Your task to perform on an android device: check battery use Image 0: 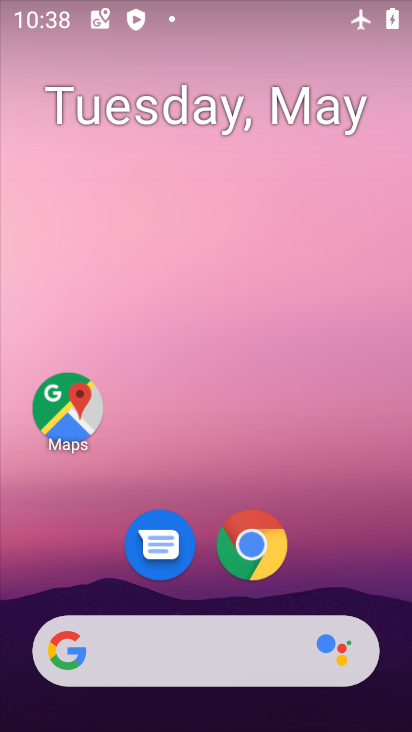
Step 0: drag from (247, 602) to (233, 163)
Your task to perform on an android device: check battery use Image 1: 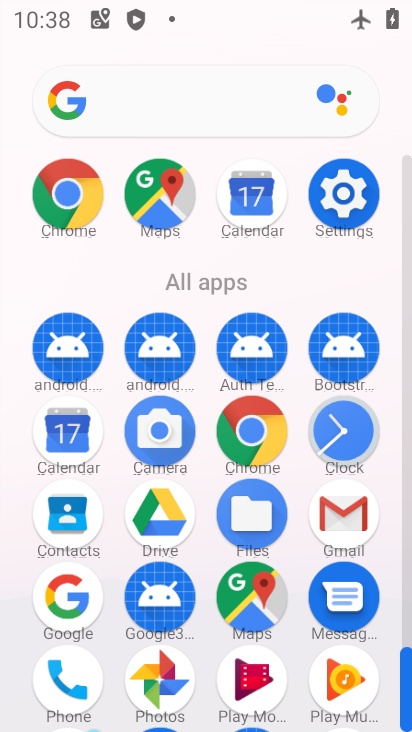
Step 1: click (355, 199)
Your task to perform on an android device: check battery use Image 2: 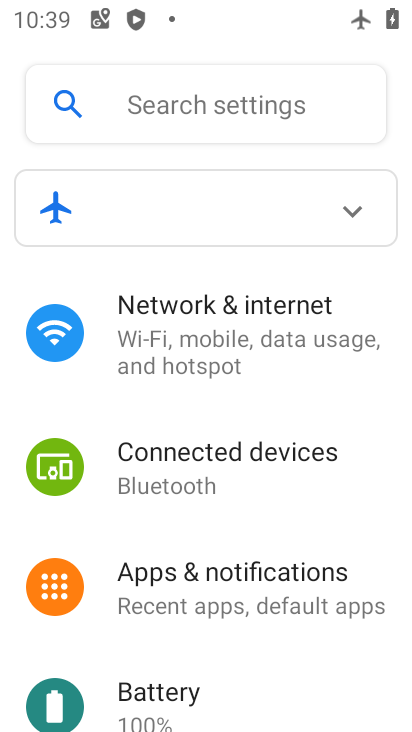
Step 2: drag from (229, 574) to (292, 214)
Your task to perform on an android device: check battery use Image 3: 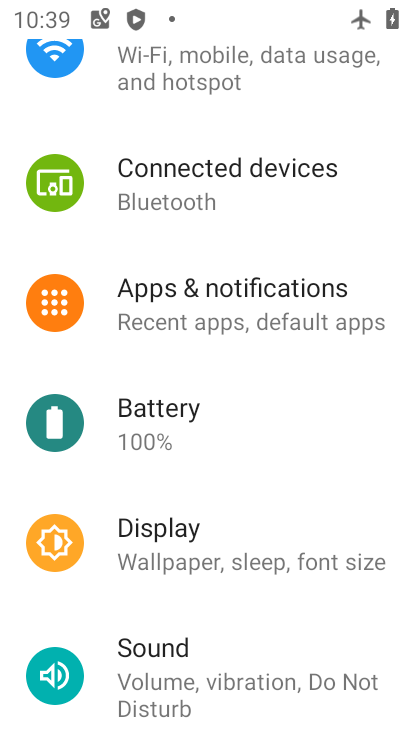
Step 3: click (194, 419)
Your task to perform on an android device: check battery use Image 4: 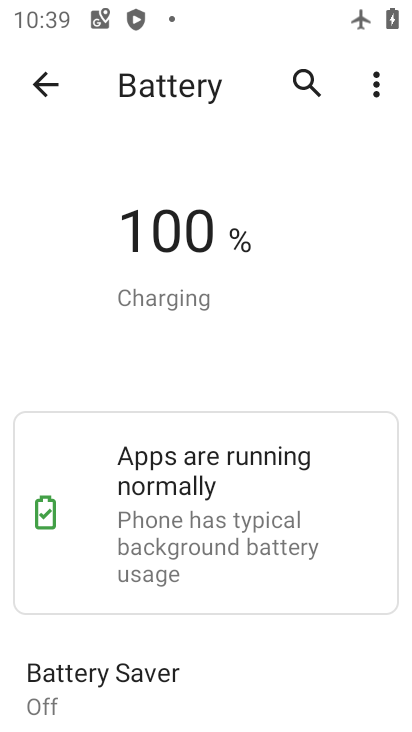
Step 4: press home button
Your task to perform on an android device: check battery use Image 5: 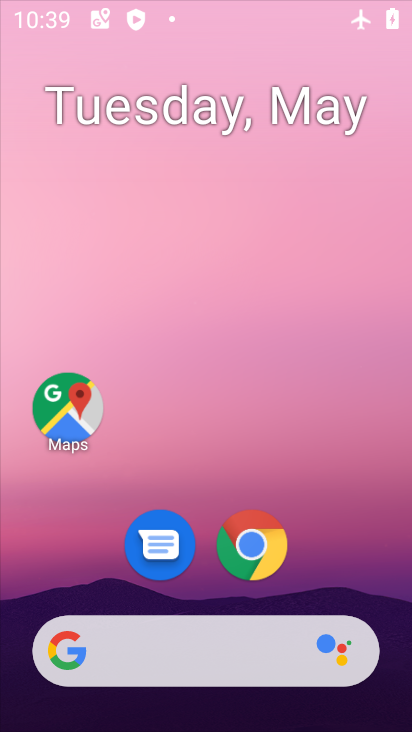
Step 5: drag from (229, 647) to (252, 228)
Your task to perform on an android device: check battery use Image 6: 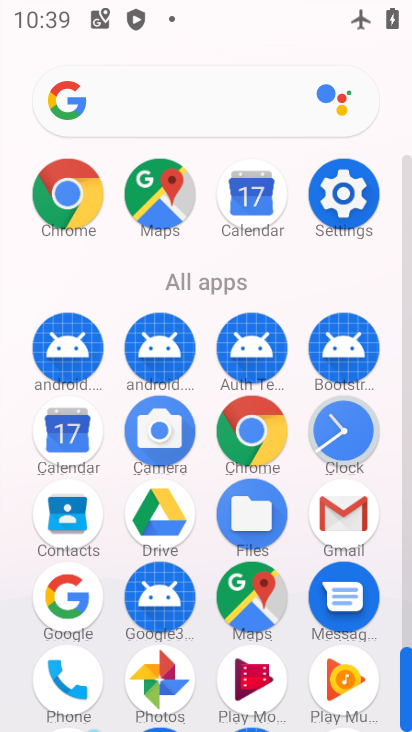
Step 6: click (339, 180)
Your task to perform on an android device: check battery use Image 7: 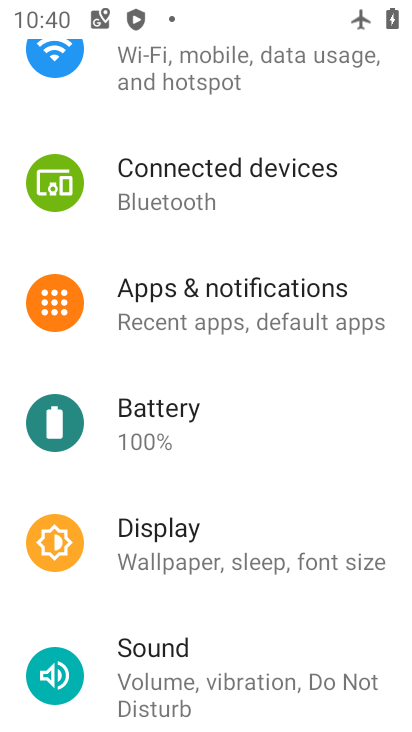
Step 7: click (179, 413)
Your task to perform on an android device: check battery use Image 8: 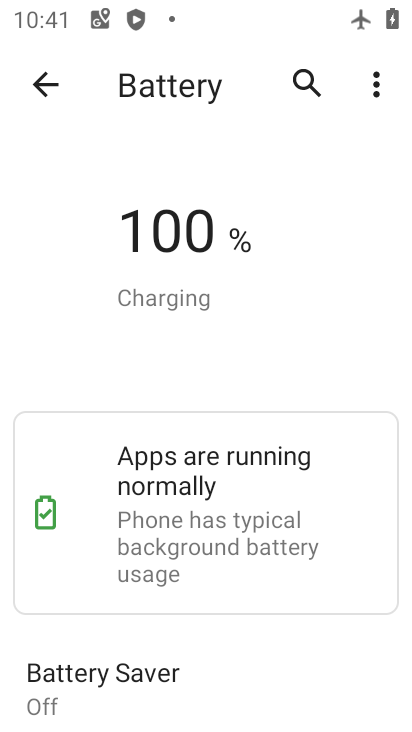
Step 8: task complete